Your task to perform on an android device: Open ESPN.com Image 0: 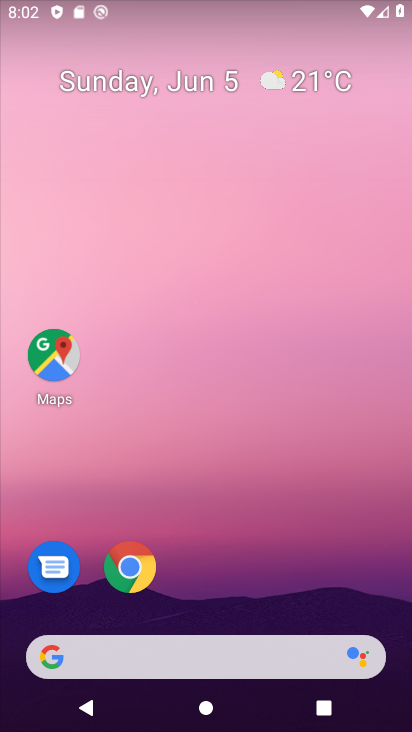
Step 0: click (129, 570)
Your task to perform on an android device: Open ESPN.com Image 1: 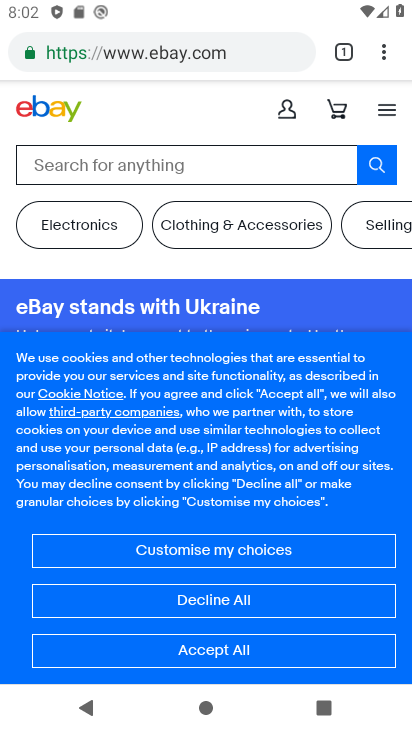
Step 1: click (344, 57)
Your task to perform on an android device: Open ESPN.com Image 2: 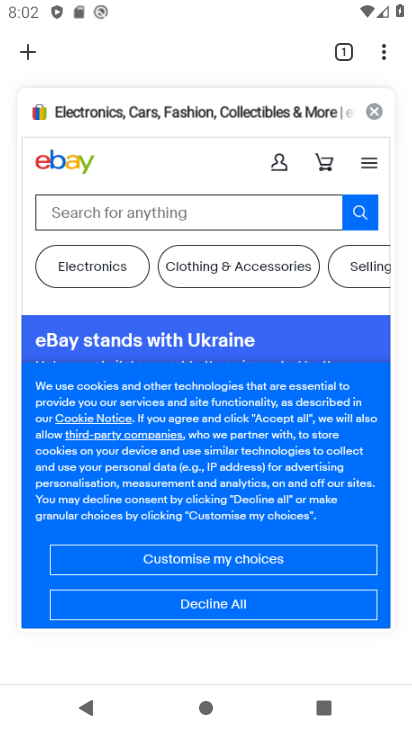
Step 2: click (35, 44)
Your task to perform on an android device: Open ESPN.com Image 3: 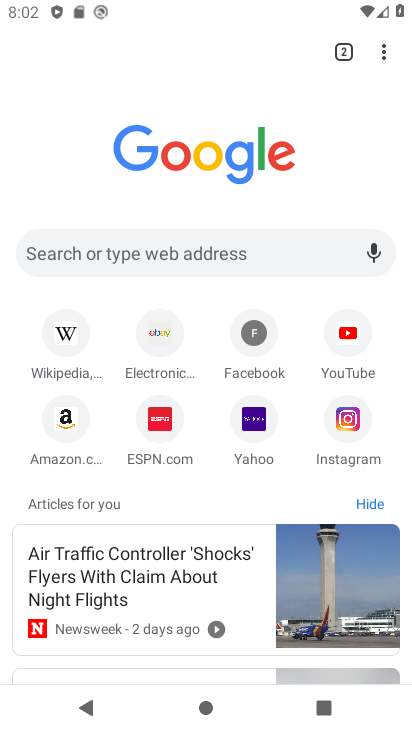
Step 3: click (163, 423)
Your task to perform on an android device: Open ESPN.com Image 4: 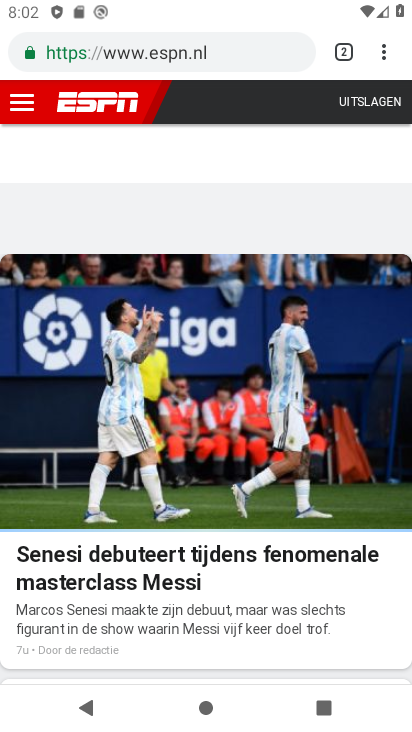
Step 4: task complete